Your task to perform on an android device: Go to CNN.com Image 0: 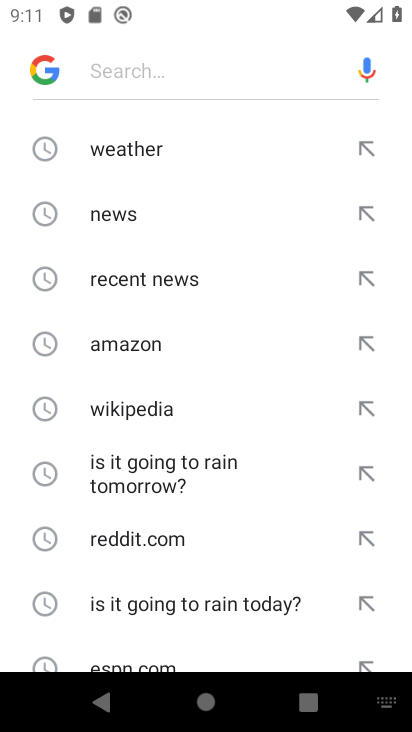
Step 0: type "cnn"
Your task to perform on an android device: Go to CNN.com Image 1: 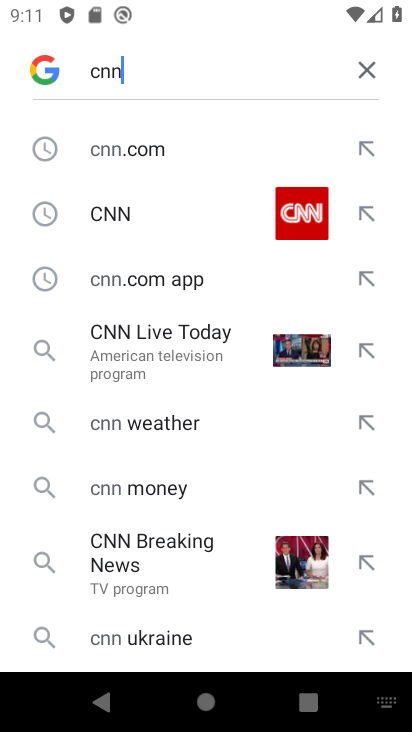
Step 1: click (142, 158)
Your task to perform on an android device: Go to CNN.com Image 2: 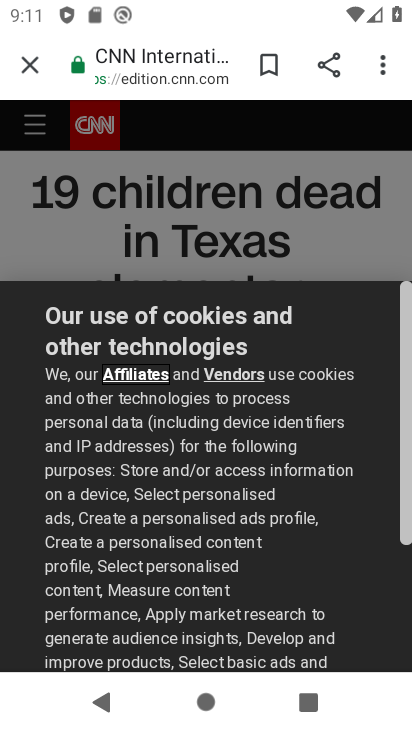
Step 2: task complete